Your task to perform on an android device: Go to eBay Image 0: 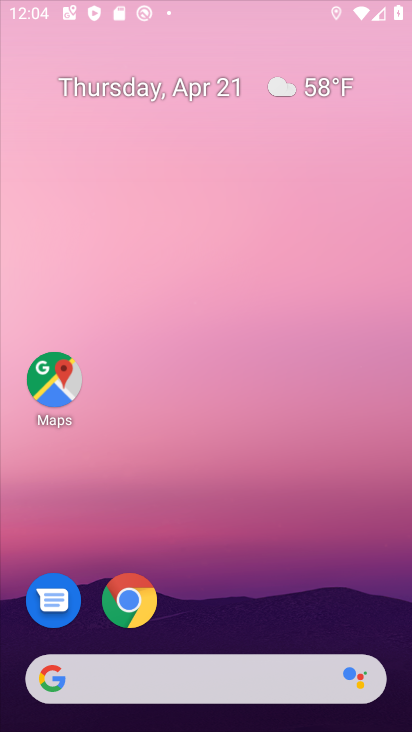
Step 0: drag from (247, 635) to (203, 6)
Your task to perform on an android device: Go to eBay Image 1: 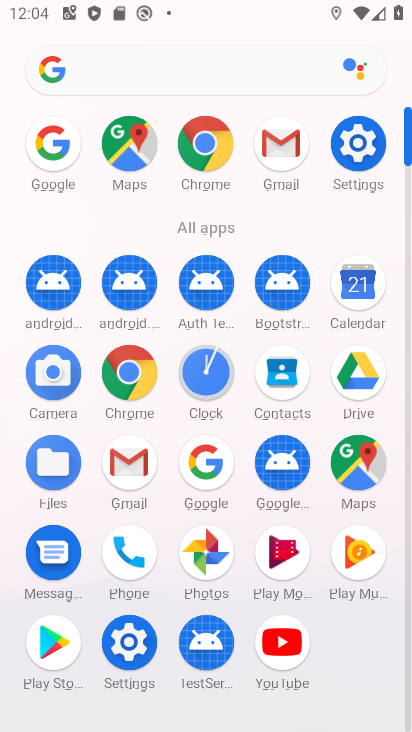
Step 1: click (222, 143)
Your task to perform on an android device: Go to eBay Image 2: 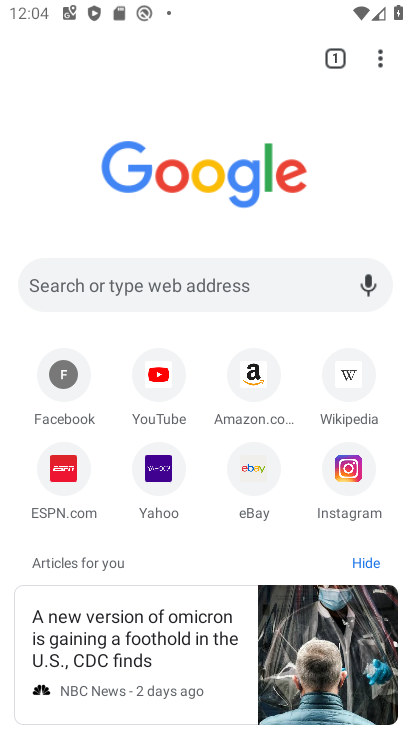
Step 2: click (246, 477)
Your task to perform on an android device: Go to eBay Image 3: 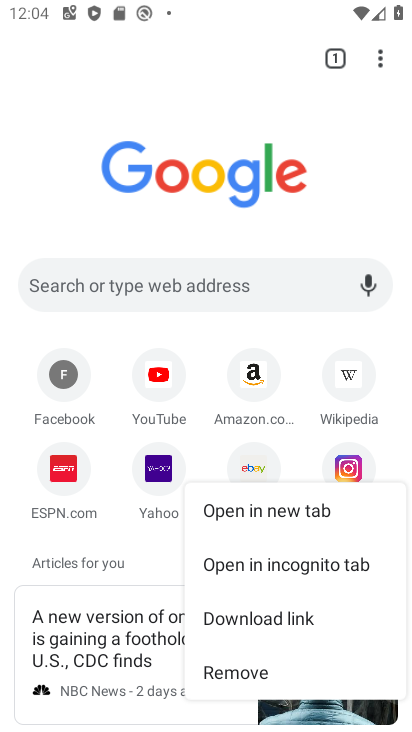
Step 3: click (254, 458)
Your task to perform on an android device: Go to eBay Image 4: 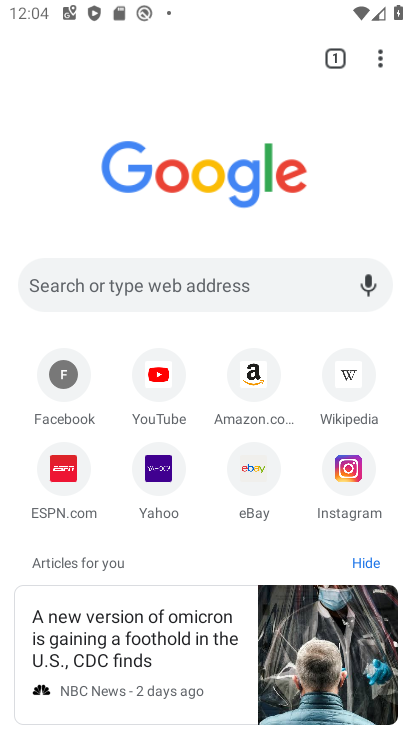
Step 4: click (251, 460)
Your task to perform on an android device: Go to eBay Image 5: 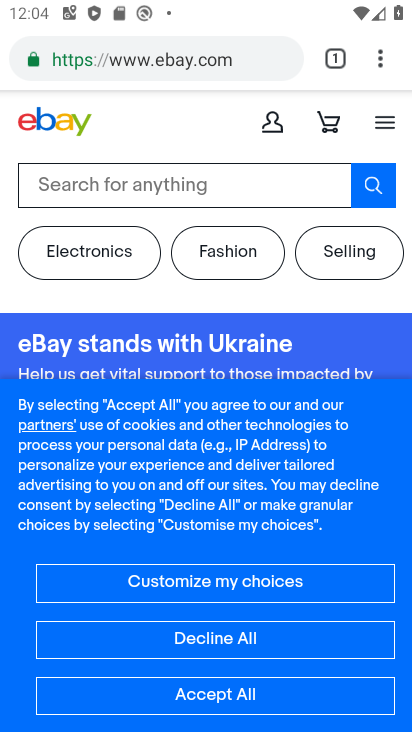
Step 5: task complete